Your task to perform on an android device: Go to Android settings Image 0: 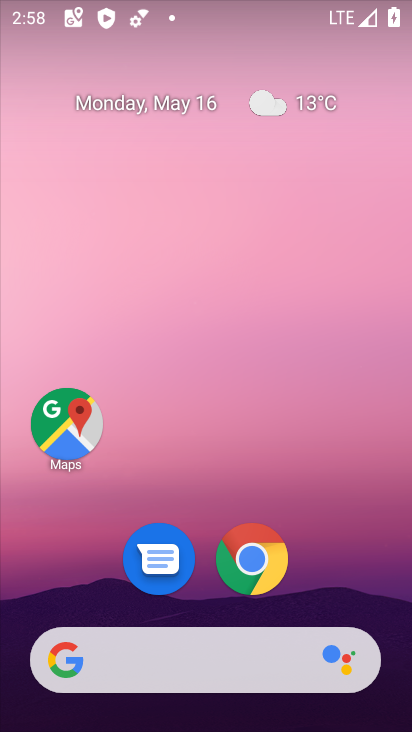
Step 0: drag from (72, 585) to (171, 124)
Your task to perform on an android device: Go to Android settings Image 1: 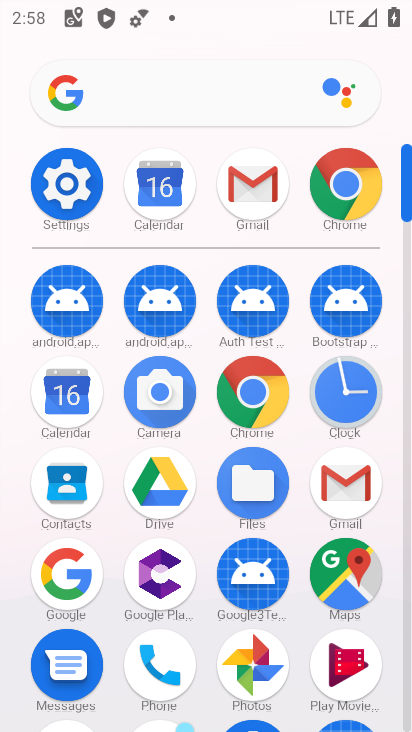
Step 1: click (74, 184)
Your task to perform on an android device: Go to Android settings Image 2: 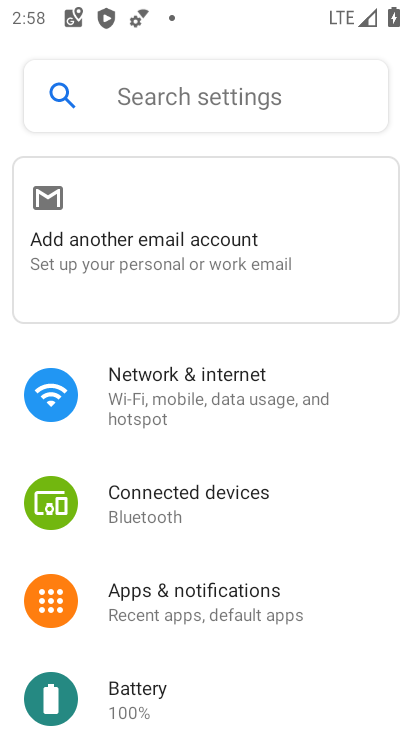
Step 2: drag from (208, 620) to (282, 83)
Your task to perform on an android device: Go to Android settings Image 3: 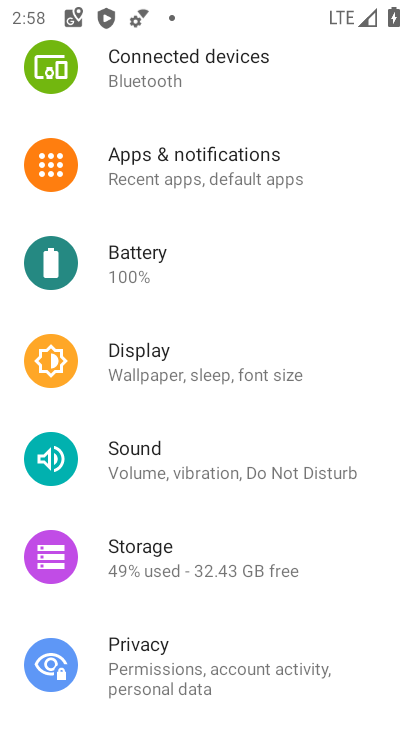
Step 3: drag from (180, 568) to (274, 11)
Your task to perform on an android device: Go to Android settings Image 4: 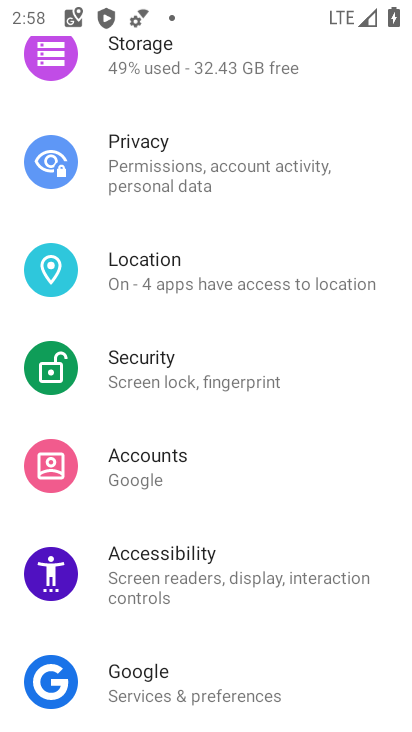
Step 4: drag from (186, 687) to (297, 63)
Your task to perform on an android device: Go to Android settings Image 5: 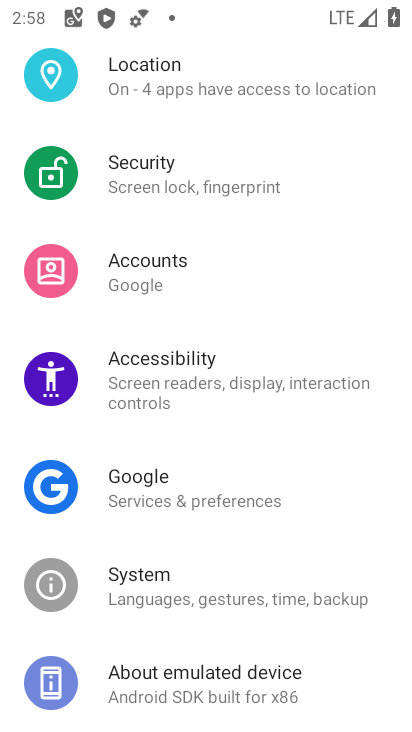
Step 5: drag from (210, 606) to (303, 13)
Your task to perform on an android device: Go to Android settings Image 6: 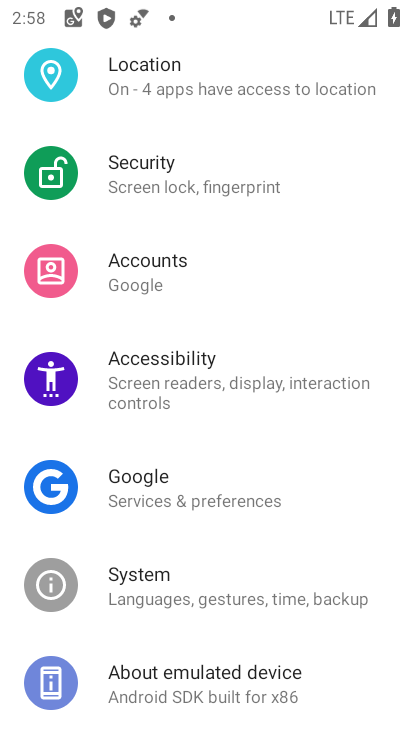
Step 6: click (177, 680)
Your task to perform on an android device: Go to Android settings Image 7: 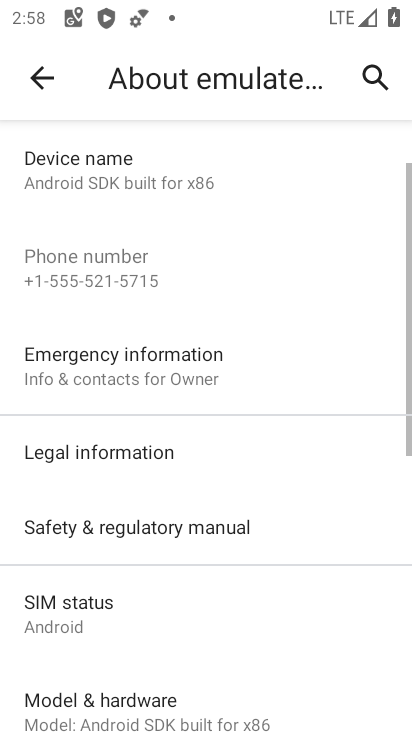
Step 7: drag from (168, 684) to (225, 137)
Your task to perform on an android device: Go to Android settings Image 8: 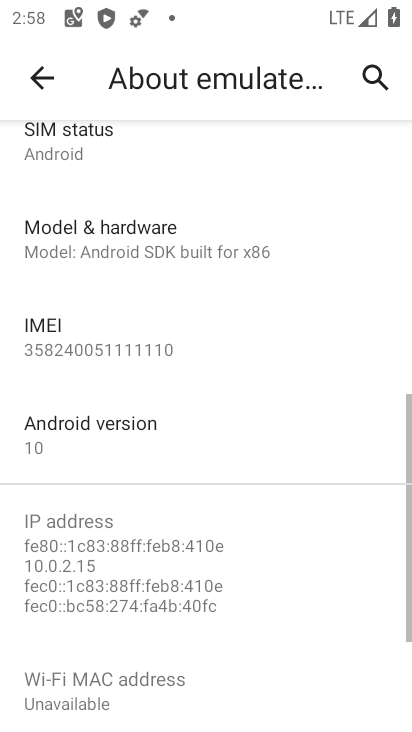
Step 8: click (78, 428)
Your task to perform on an android device: Go to Android settings Image 9: 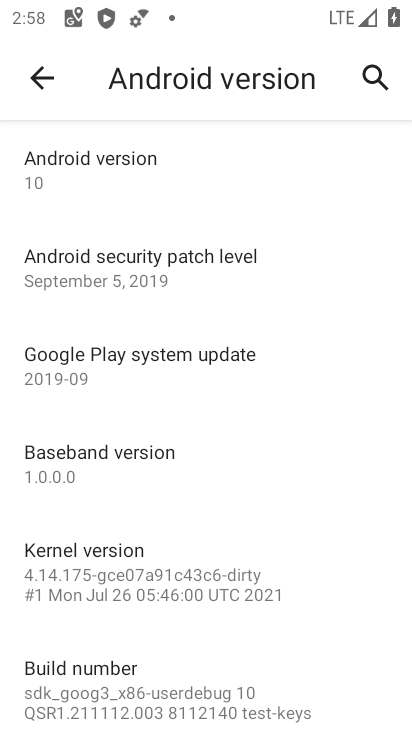
Step 9: task complete